Your task to perform on an android device: toggle improve location accuracy Image 0: 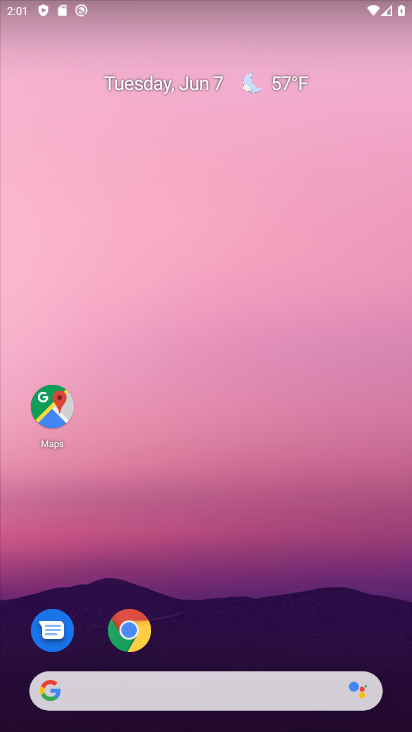
Step 0: drag from (397, 652) to (386, 64)
Your task to perform on an android device: toggle improve location accuracy Image 1: 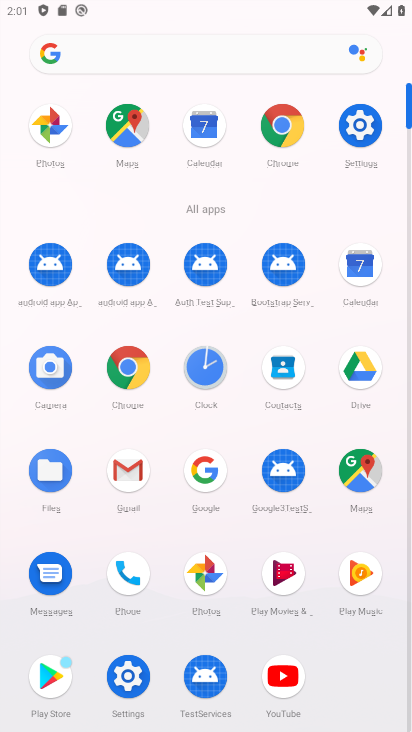
Step 1: click (364, 134)
Your task to perform on an android device: toggle improve location accuracy Image 2: 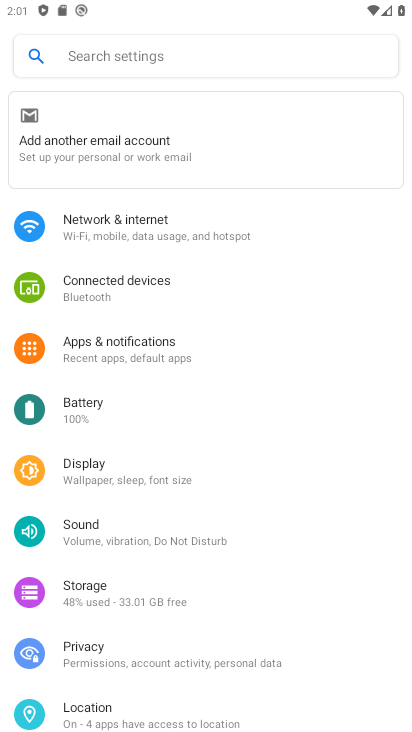
Step 2: click (92, 705)
Your task to perform on an android device: toggle improve location accuracy Image 3: 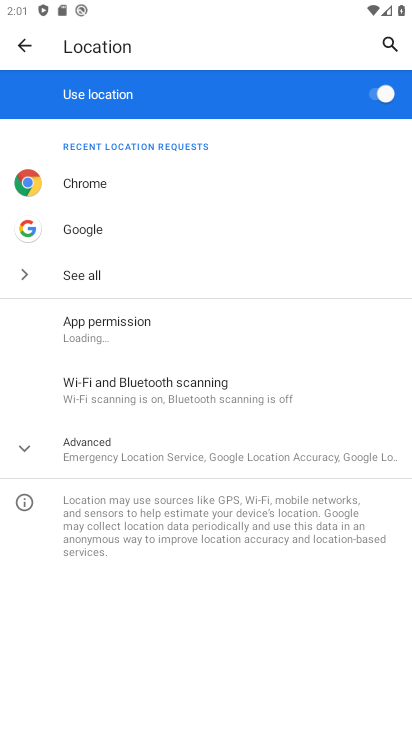
Step 3: click (96, 440)
Your task to perform on an android device: toggle improve location accuracy Image 4: 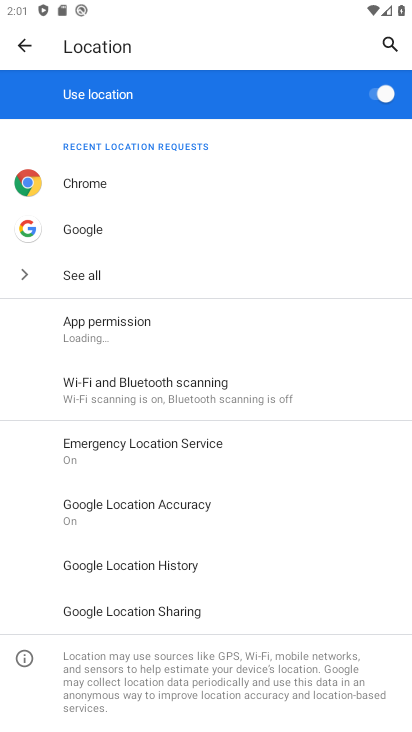
Step 4: click (131, 499)
Your task to perform on an android device: toggle improve location accuracy Image 5: 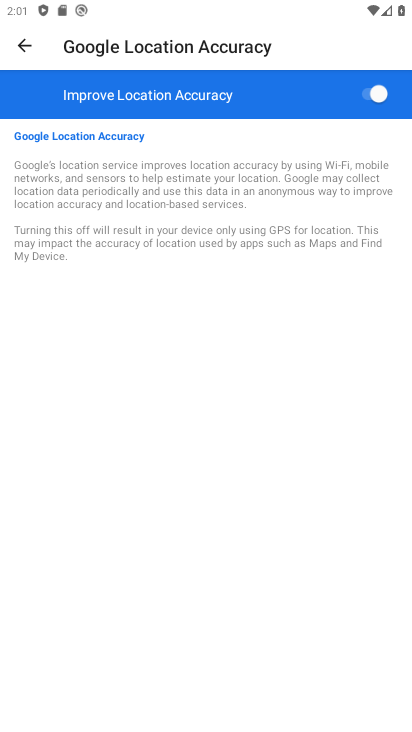
Step 5: click (370, 96)
Your task to perform on an android device: toggle improve location accuracy Image 6: 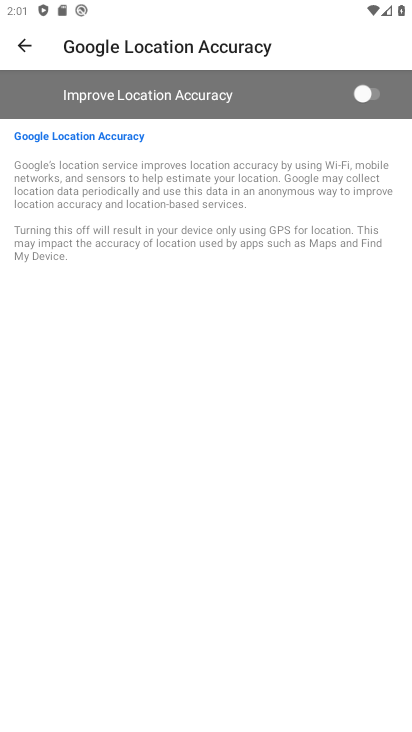
Step 6: task complete